Your task to perform on an android device: turn on data saver in the chrome app Image 0: 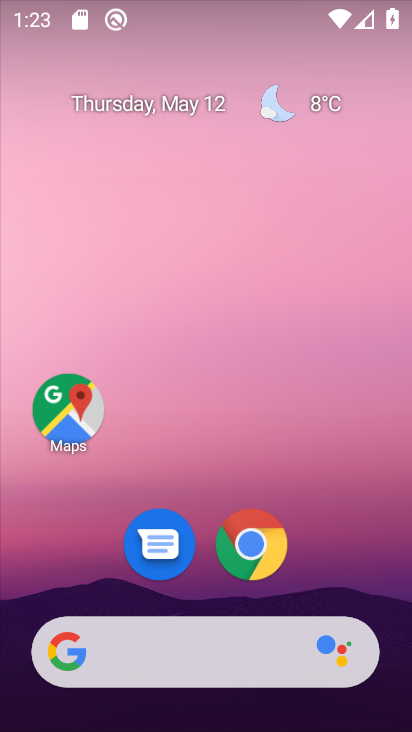
Step 0: click (262, 550)
Your task to perform on an android device: turn on data saver in the chrome app Image 1: 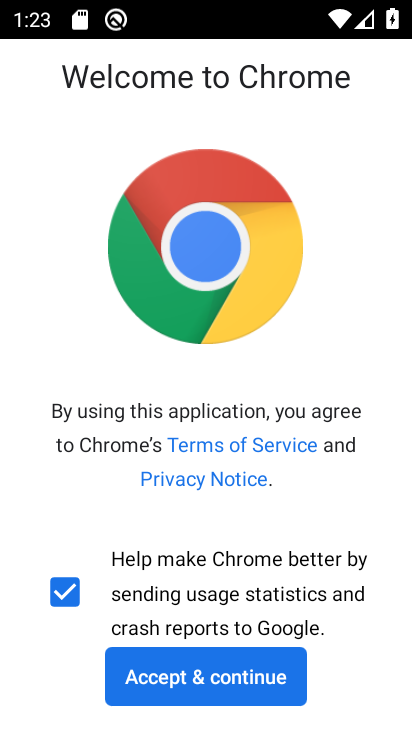
Step 1: click (206, 678)
Your task to perform on an android device: turn on data saver in the chrome app Image 2: 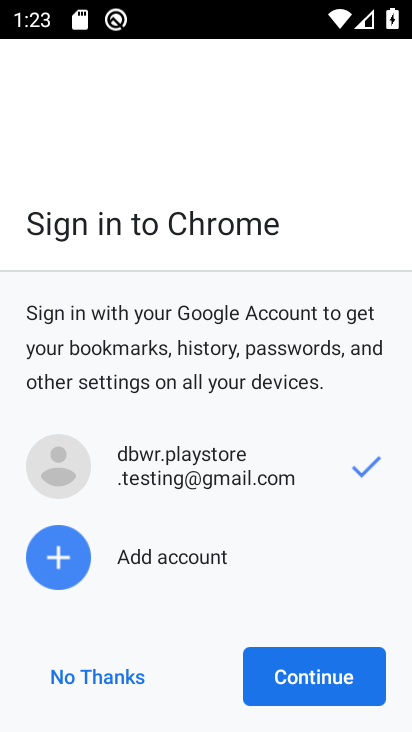
Step 2: click (271, 681)
Your task to perform on an android device: turn on data saver in the chrome app Image 3: 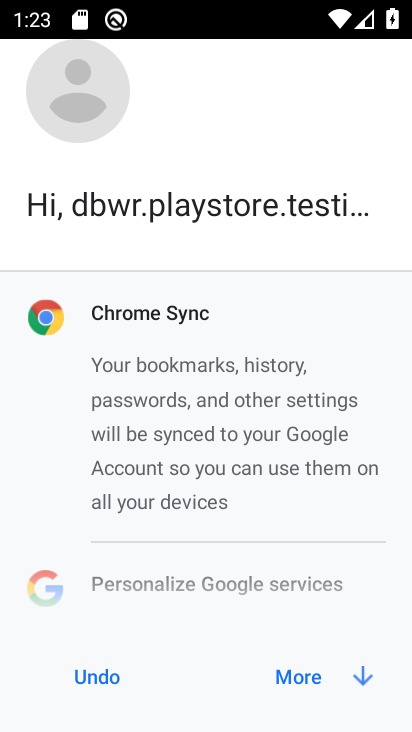
Step 3: click (271, 681)
Your task to perform on an android device: turn on data saver in the chrome app Image 4: 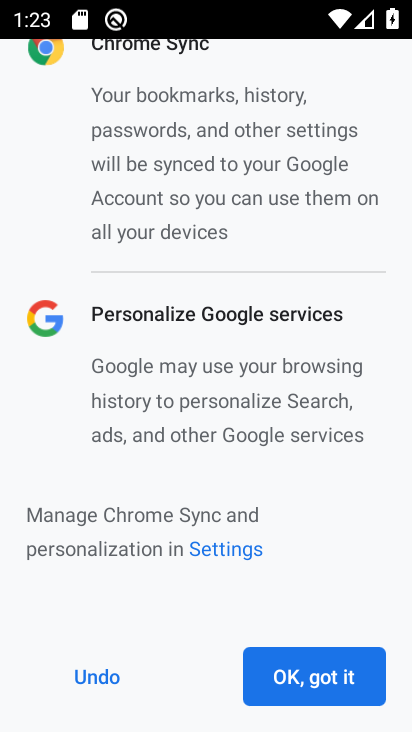
Step 4: click (271, 681)
Your task to perform on an android device: turn on data saver in the chrome app Image 5: 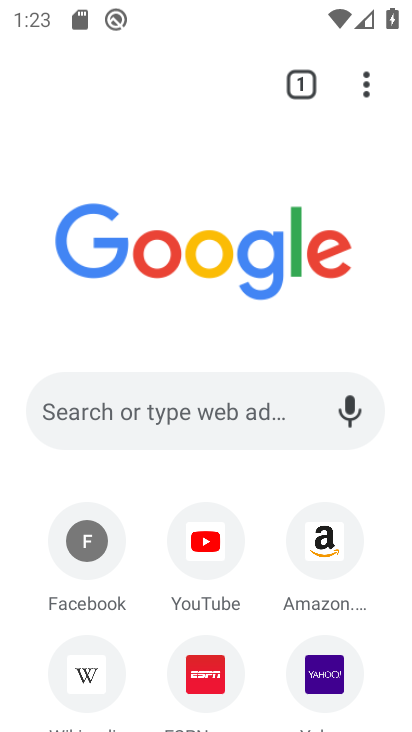
Step 5: click (365, 70)
Your task to perform on an android device: turn on data saver in the chrome app Image 6: 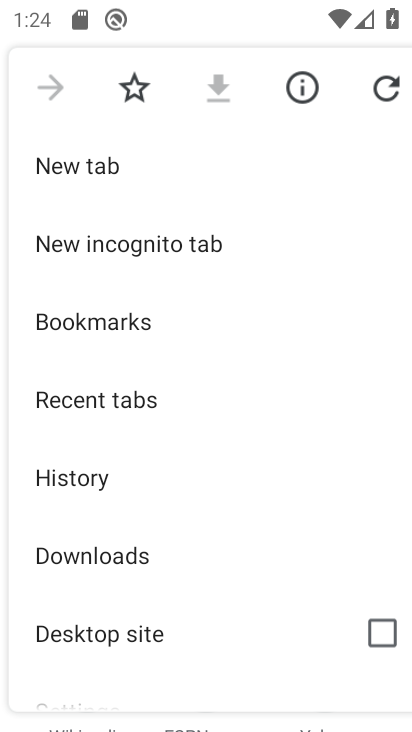
Step 6: drag from (174, 562) to (222, 140)
Your task to perform on an android device: turn on data saver in the chrome app Image 7: 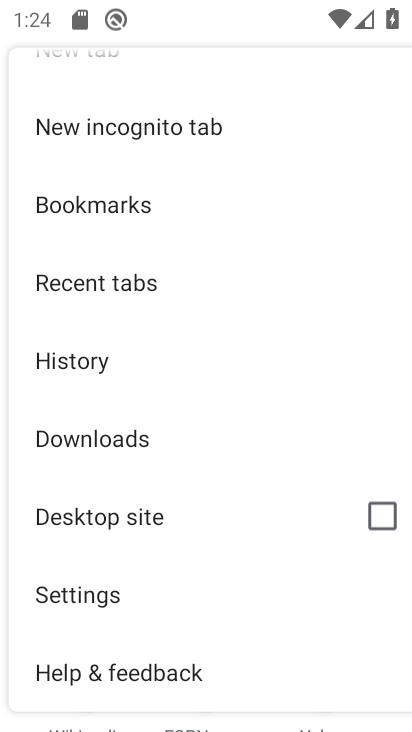
Step 7: click (106, 592)
Your task to perform on an android device: turn on data saver in the chrome app Image 8: 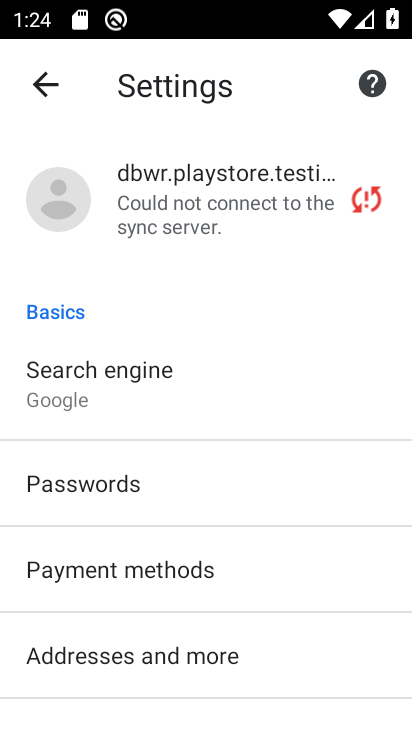
Step 8: drag from (150, 628) to (290, 46)
Your task to perform on an android device: turn on data saver in the chrome app Image 9: 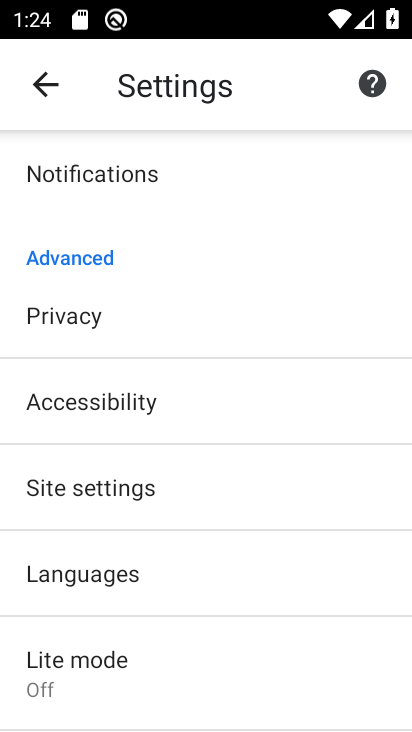
Step 9: drag from (181, 639) to (202, 363)
Your task to perform on an android device: turn on data saver in the chrome app Image 10: 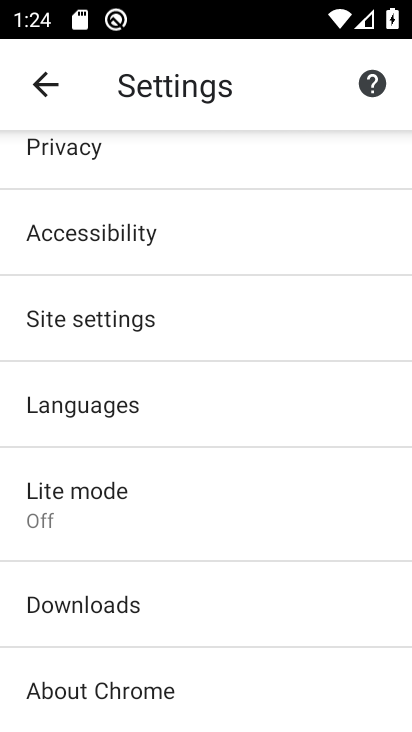
Step 10: click (80, 488)
Your task to perform on an android device: turn on data saver in the chrome app Image 11: 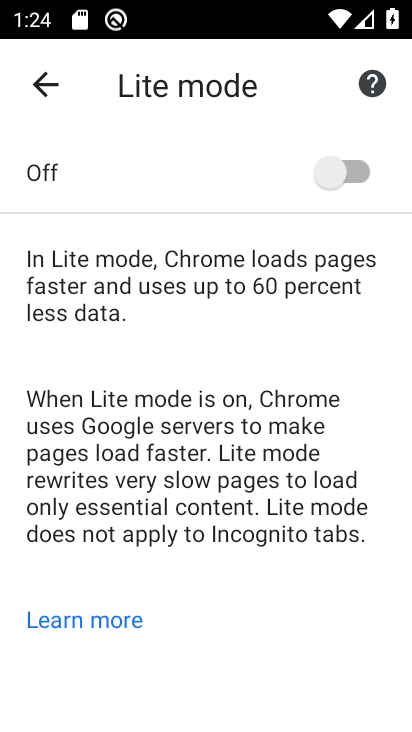
Step 11: click (332, 184)
Your task to perform on an android device: turn on data saver in the chrome app Image 12: 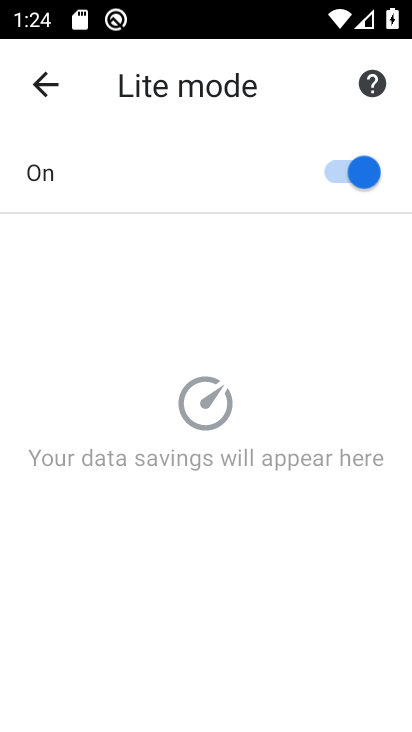
Step 12: task complete